Your task to perform on an android device: What's the weather today? Image 0: 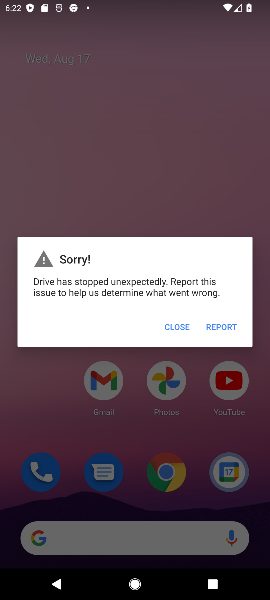
Step 0: click (164, 318)
Your task to perform on an android device: What's the weather today? Image 1: 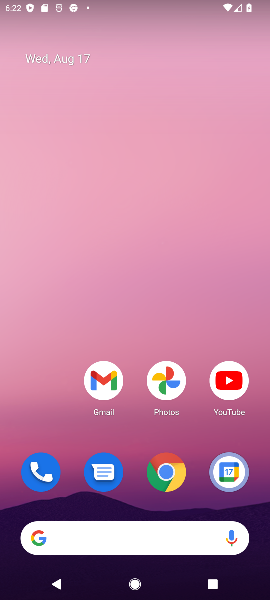
Step 1: drag from (140, 436) to (161, 106)
Your task to perform on an android device: What's the weather today? Image 2: 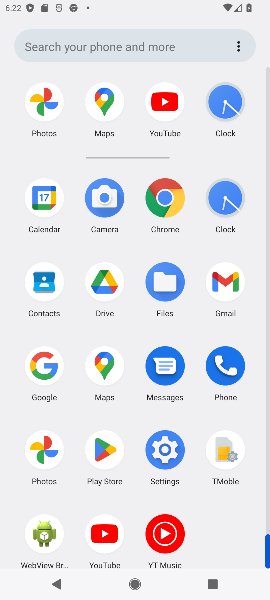
Step 2: click (50, 363)
Your task to perform on an android device: What's the weather today? Image 3: 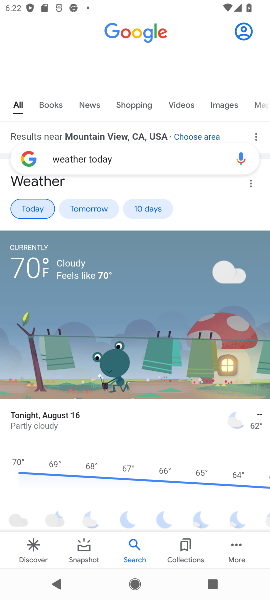
Step 3: click (125, 165)
Your task to perform on an android device: What's the weather today? Image 4: 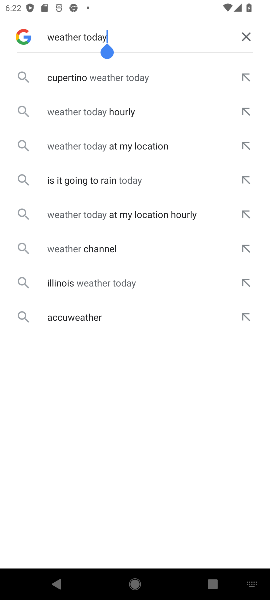
Step 4: click (91, 216)
Your task to perform on an android device: What's the weather today? Image 5: 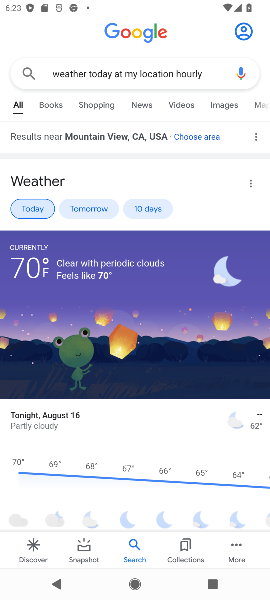
Step 5: task complete